Your task to perform on an android device: toggle location history Image 0: 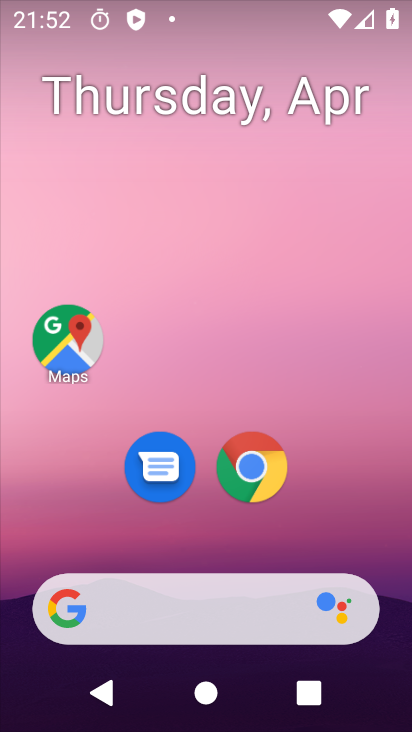
Step 0: drag from (257, 574) to (319, 40)
Your task to perform on an android device: toggle location history Image 1: 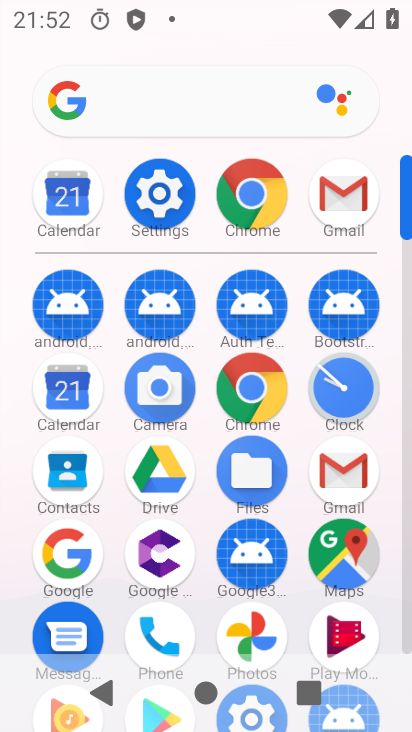
Step 1: click (156, 175)
Your task to perform on an android device: toggle location history Image 2: 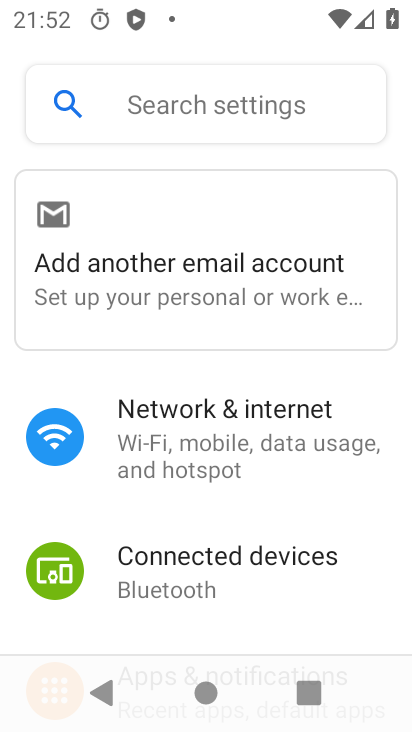
Step 2: drag from (310, 533) to (294, 179)
Your task to perform on an android device: toggle location history Image 3: 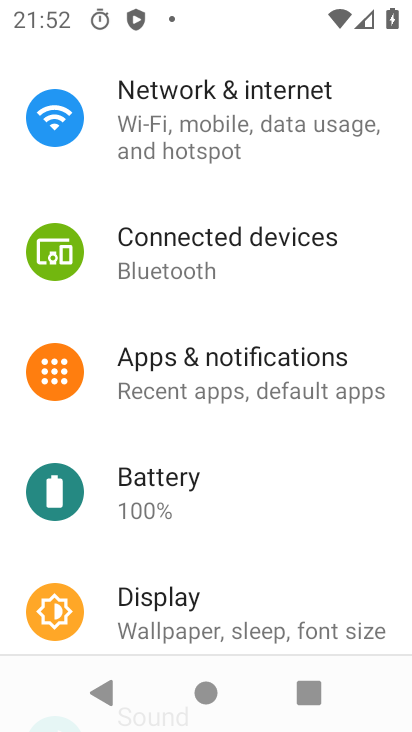
Step 3: drag from (221, 580) to (214, 206)
Your task to perform on an android device: toggle location history Image 4: 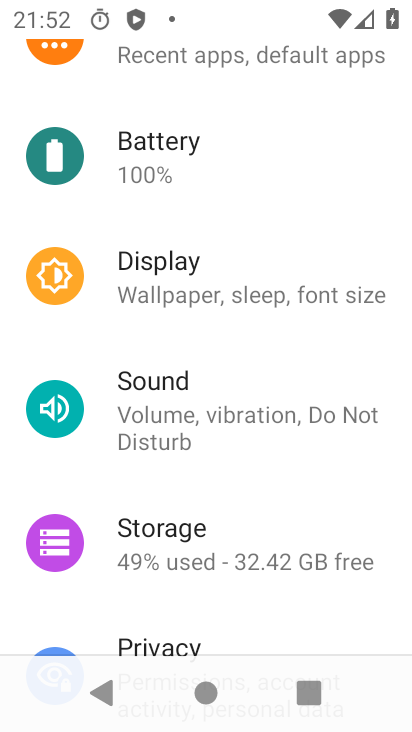
Step 4: drag from (171, 568) to (171, 183)
Your task to perform on an android device: toggle location history Image 5: 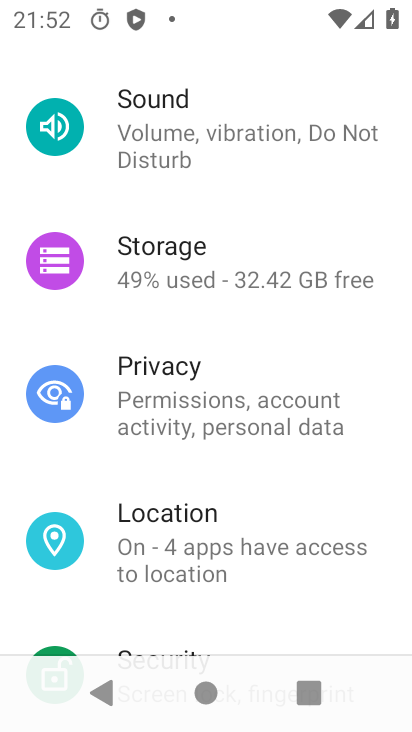
Step 5: click (185, 558)
Your task to perform on an android device: toggle location history Image 6: 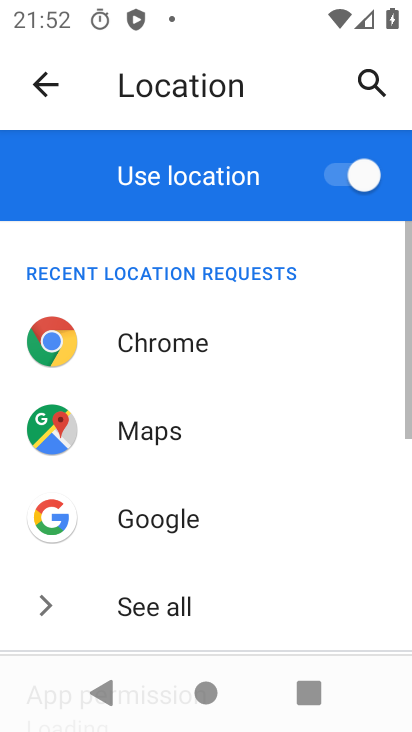
Step 6: drag from (187, 540) to (173, 165)
Your task to perform on an android device: toggle location history Image 7: 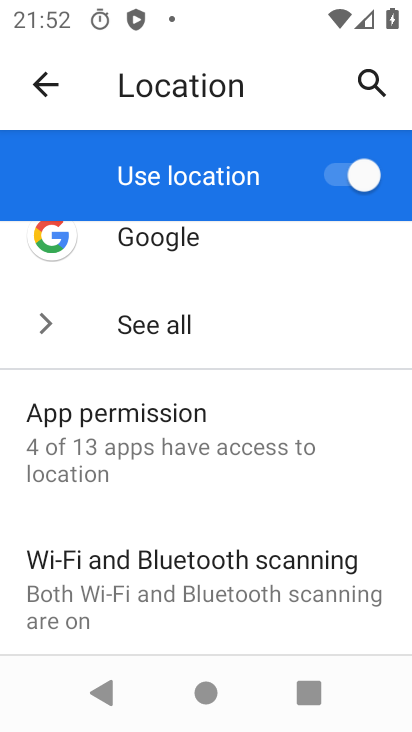
Step 7: drag from (212, 452) to (184, 143)
Your task to perform on an android device: toggle location history Image 8: 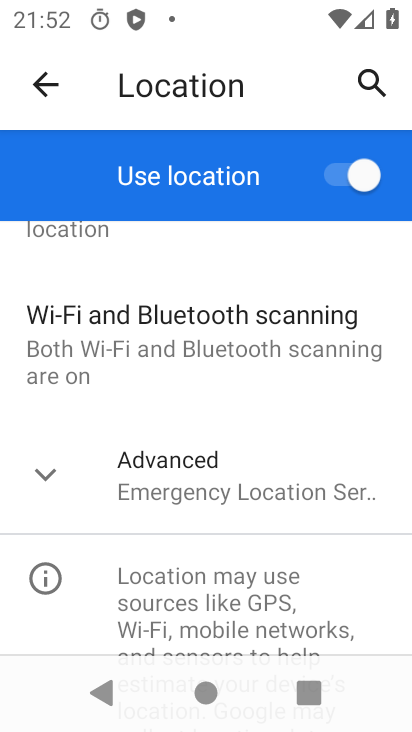
Step 8: click (182, 477)
Your task to perform on an android device: toggle location history Image 9: 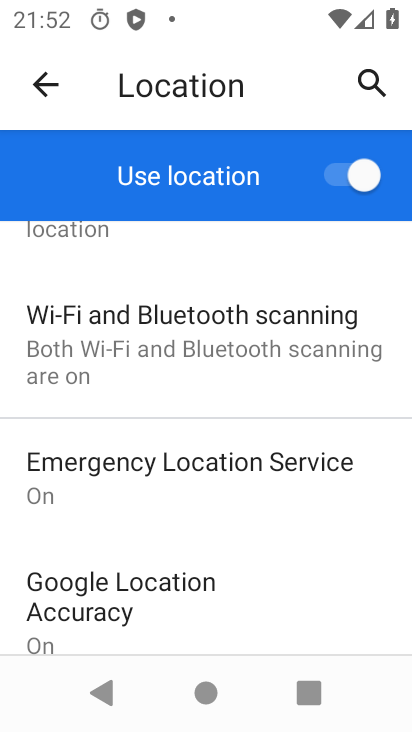
Step 9: drag from (201, 594) to (212, 254)
Your task to perform on an android device: toggle location history Image 10: 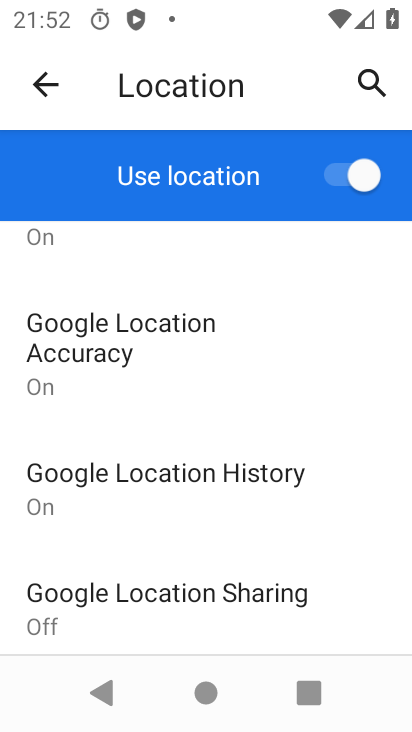
Step 10: click (218, 482)
Your task to perform on an android device: toggle location history Image 11: 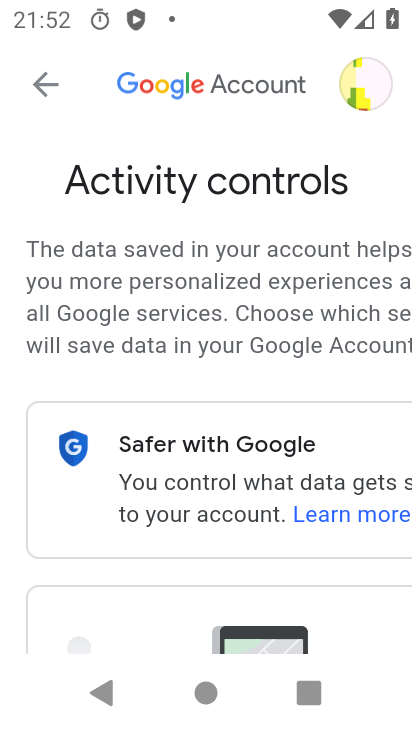
Step 11: drag from (261, 596) to (156, 85)
Your task to perform on an android device: toggle location history Image 12: 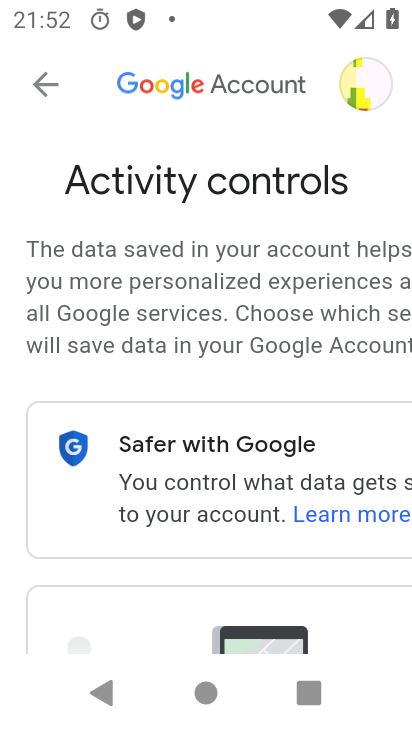
Step 12: drag from (322, 572) to (161, 165)
Your task to perform on an android device: toggle location history Image 13: 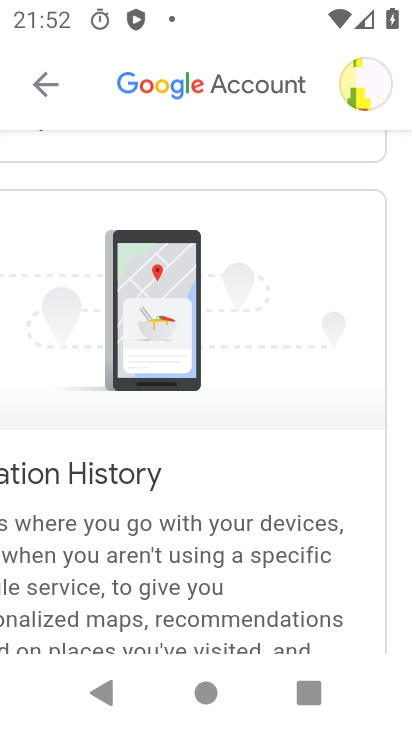
Step 13: drag from (314, 563) to (272, 94)
Your task to perform on an android device: toggle location history Image 14: 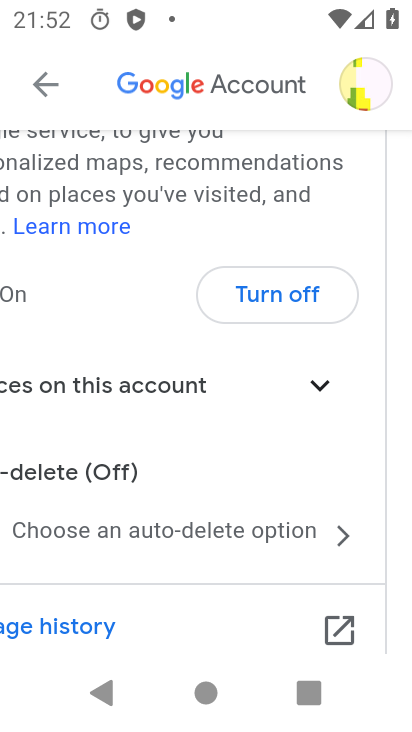
Step 14: click (286, 289)
Your task to perform on an android device: toggle location history Image 15: 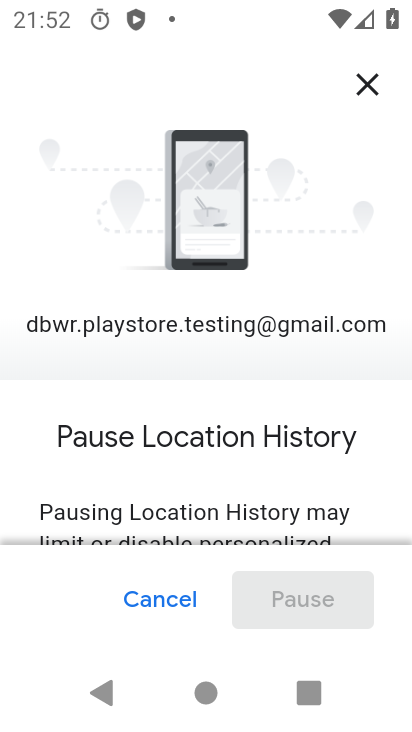
Step 15: drag from (310, 508) to (244, 7)
Your task to perform on an android device: toggle location history Image 16: 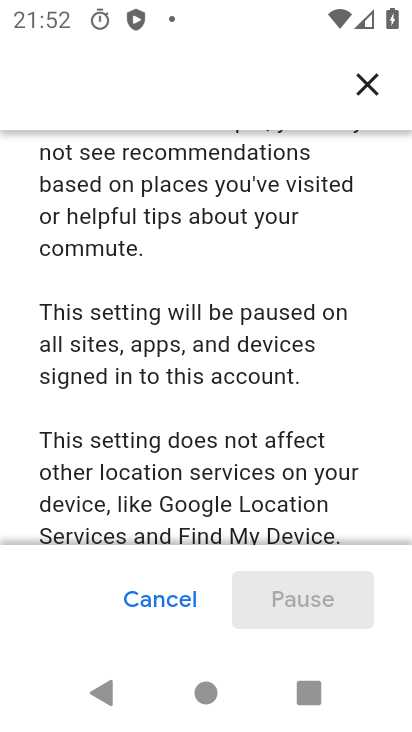
Step 16: drag from (239, 455) to (144, 4)
Your task to perform on an android device: toggle location history Image 17: 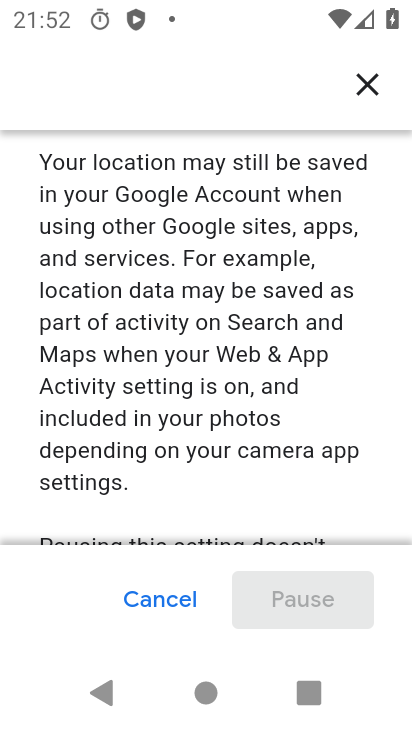
Step 17: drag from (224, 444) to (171, 0)
Your task to perform on an android device: toggle location history Image 18: 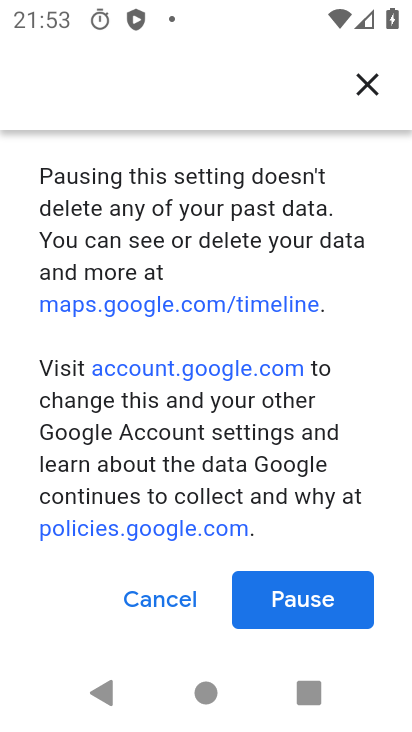
Step 18: click (313, 592)
Your task to perform on an android device: toggle location history Image 19: 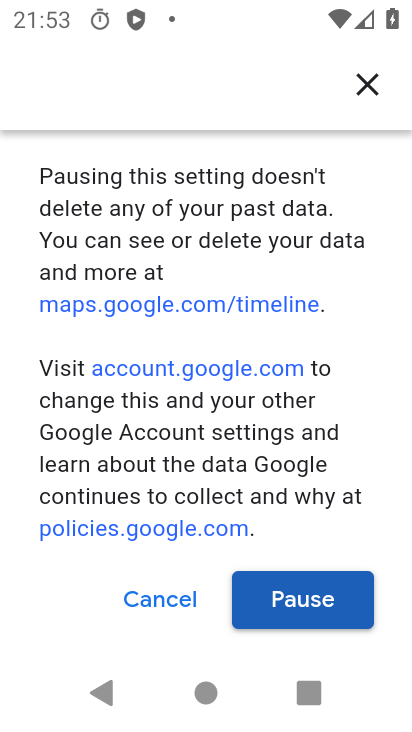
Step 19: click (259, 605)
Your task to perform on an android device: toggle location history Image 20: 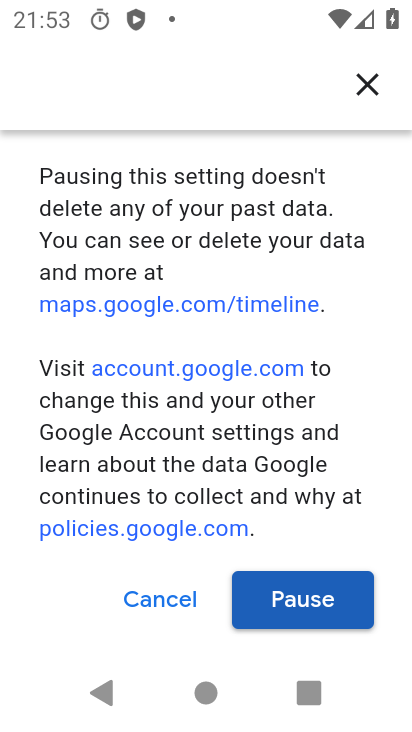
Step 20: click (282, 590)
Your task to perform on an android device: toggle location history Image 21: 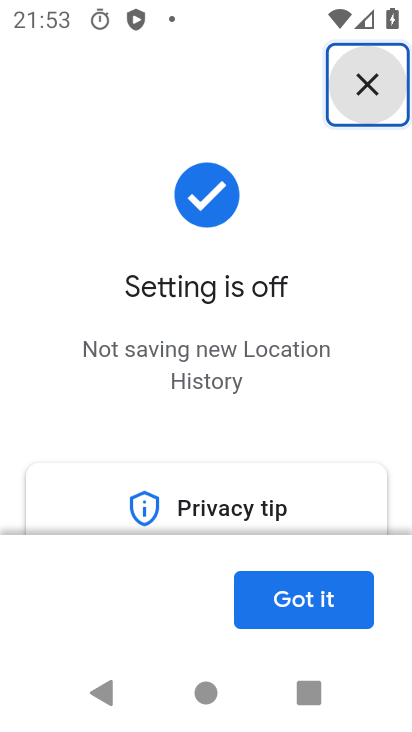
Step 21: click (279, 594)
Your task to perform on an android device: toggle location history Image 22: 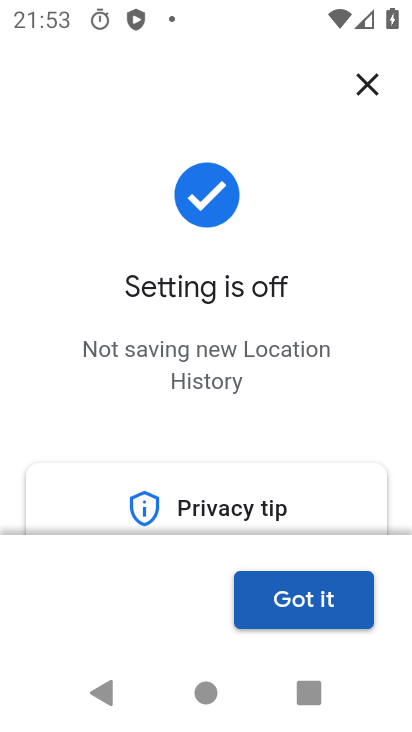
Step 22: click (309, 622)
Your task to perform on an android device: toggle location history Image 23: 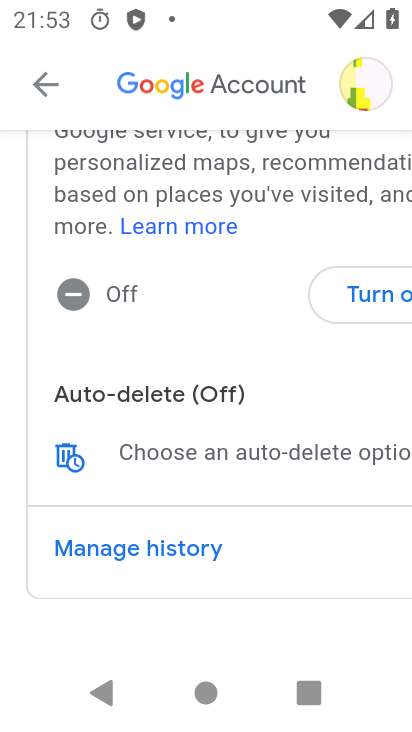
Step 23: task complete